Your task to perform on an android device: Check the news Image 0: 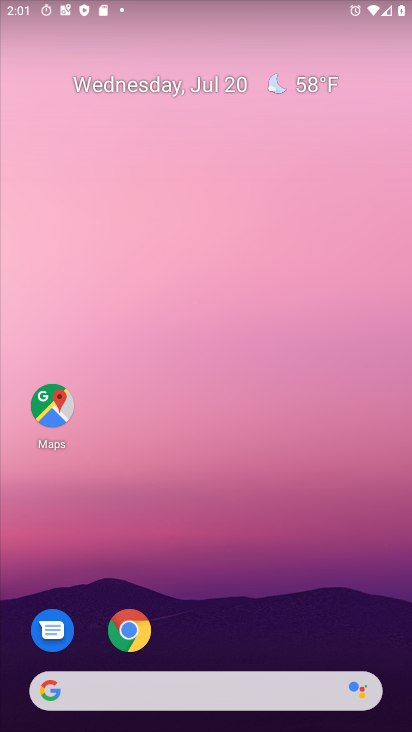
Step 0: press home button
Your task to perform on an android device: Check the news Image 1: 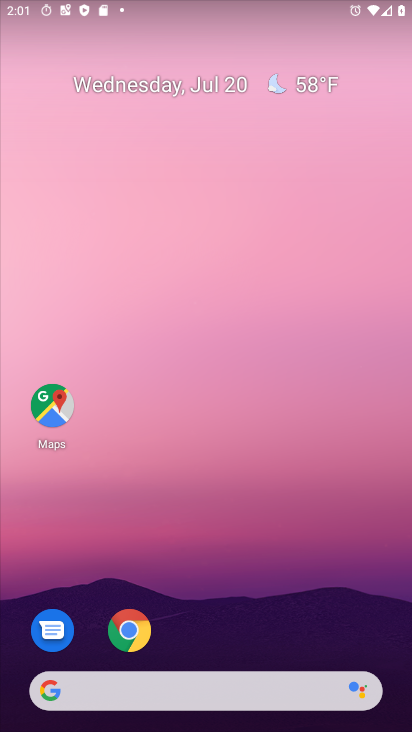
Step 1: click (149, 694)
Your task to perform on an android device: Check the news Image 2: 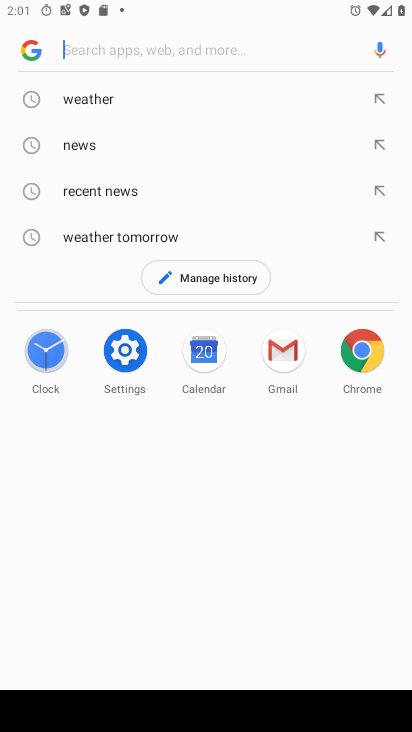
Step 2: click (80, 139)
Your task to perform on an android device: Check the news Image 3: 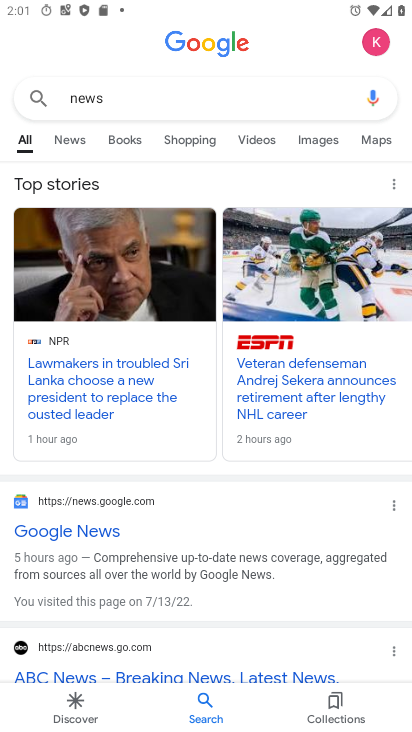
Step 3: click (73, 143)
Your task to perform on an android device: Check the news Image 4: 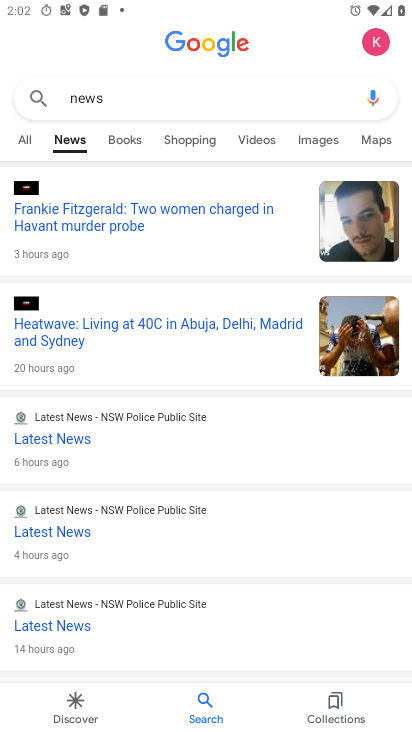
Step 4: task complete